Your task to perform on an android device: See recent photos Image 0: 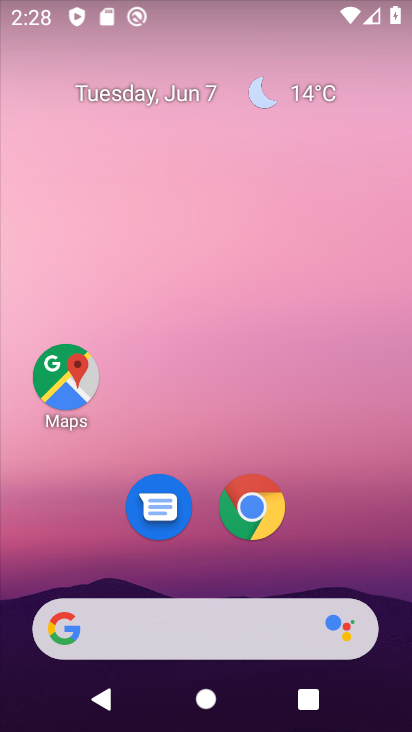
Step 0: drag from (332, 479) to (336, 117)
Your task to perform on an android device: See recent photos Image 1: 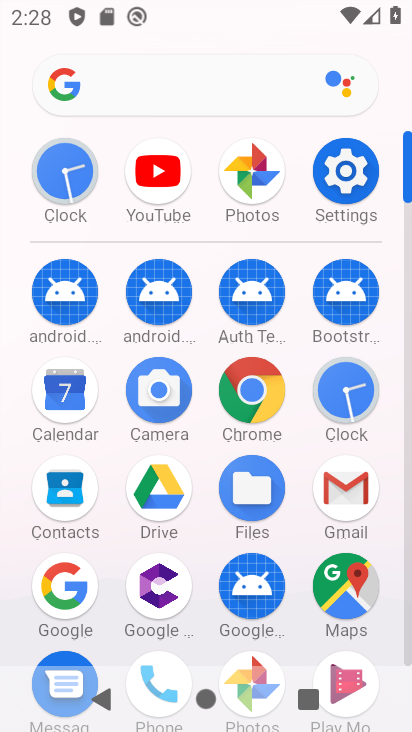
Step 1: click (253, 174)
Your task to perform on an android device: See recent photos Image 2: 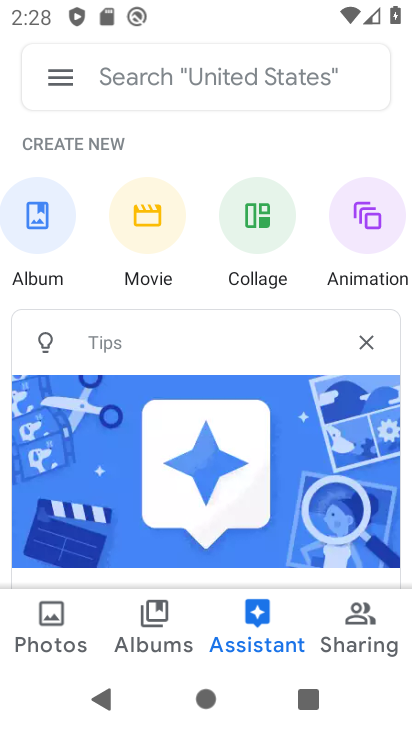
Step 2: click (57, 629)
Your task to perform on an android device: See recent photos Image 3: 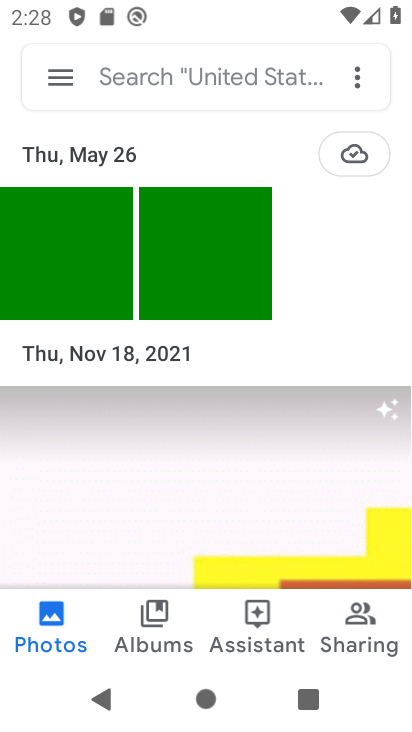
Step 3: task complete